Your task to perform on an android device: Play the last video I watched on Youtube Image 0: 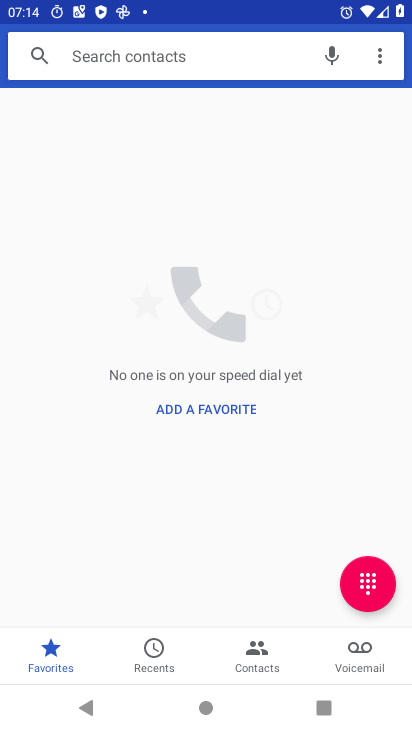
Step 0: press home button
Your task to perform on an android device: Play the last video I watched on Youtube Image 1: 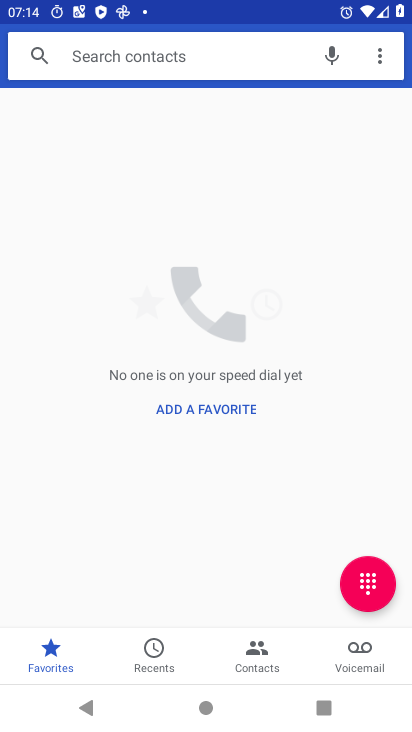
Step 1: press home button
Your task to perform on an android device: Play the last video I watched on Youtube Image 2: 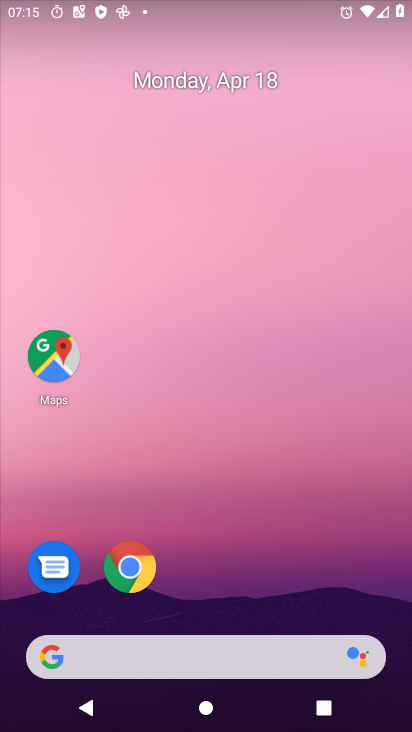
Step 2: drag from (255, 549) to (277, 26)
Your task to perform on an android device: Play the last video I watched on Youtube Image 3: 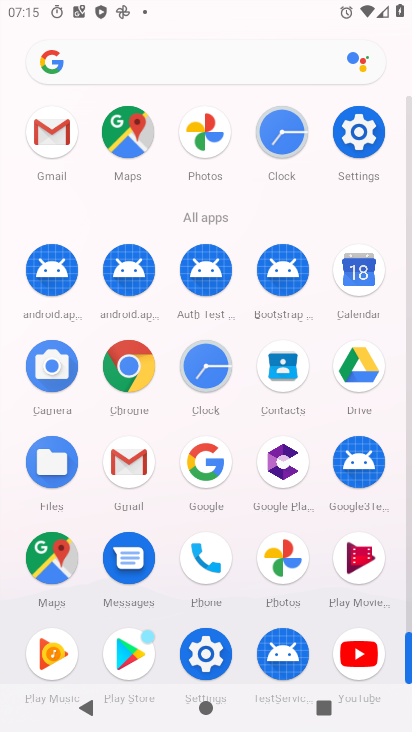
Step 3: click (359, 644)
Your task to perform on an android device: Play the last video I watched on Youtube Image 4: 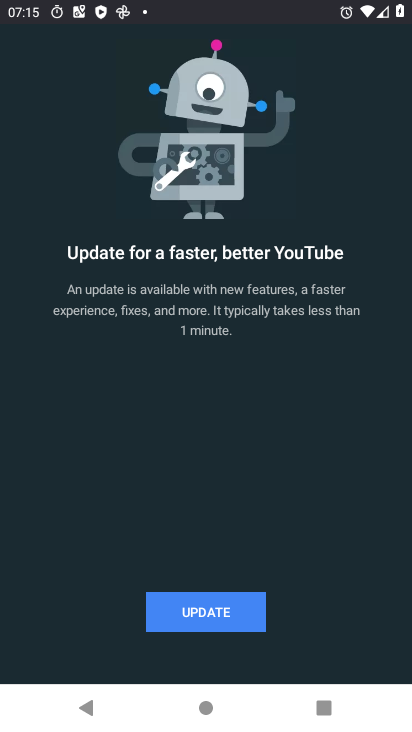
Step 4: click (211, 607)
Your task to perform on an android device: Play the last video I watched on Youtube Image 5: 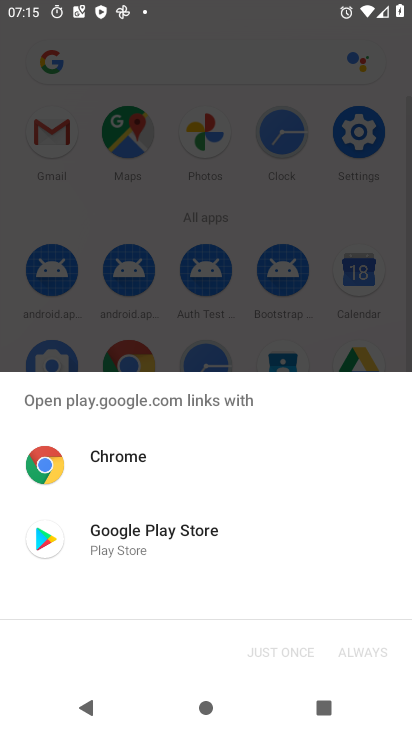
Step 5: click (192, 550)
Your task to perform on an android device: Play the last video I watched on Youtube Image 6: 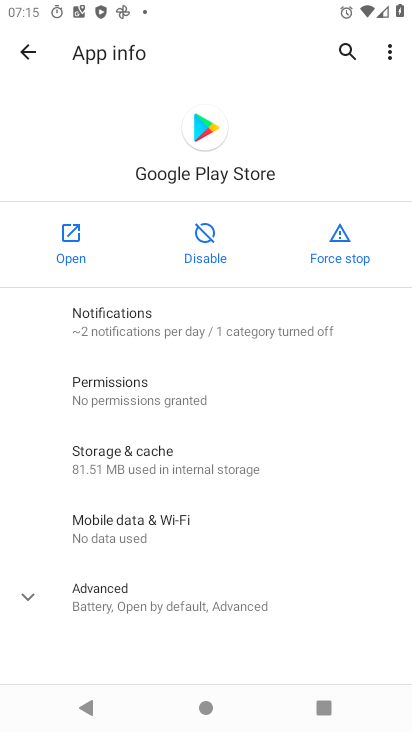
Step 6: press back button
Your task to perform on an android device: Play the last video I watched on Youtube Image 7: 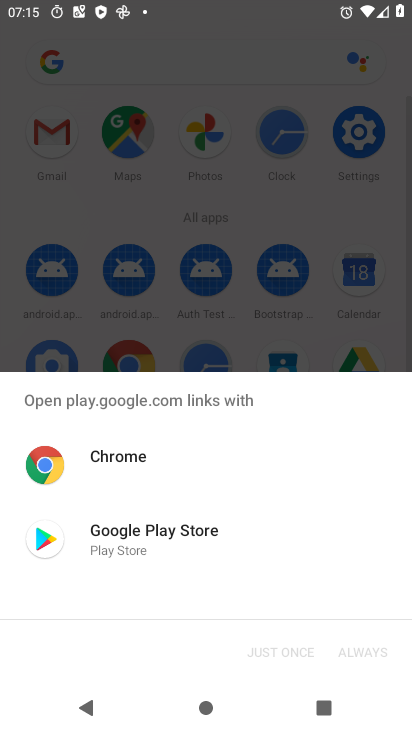
Step 7: click (64, 456)
Your task to perform on an android device: Play the last video I watched on Youtube Image 8: 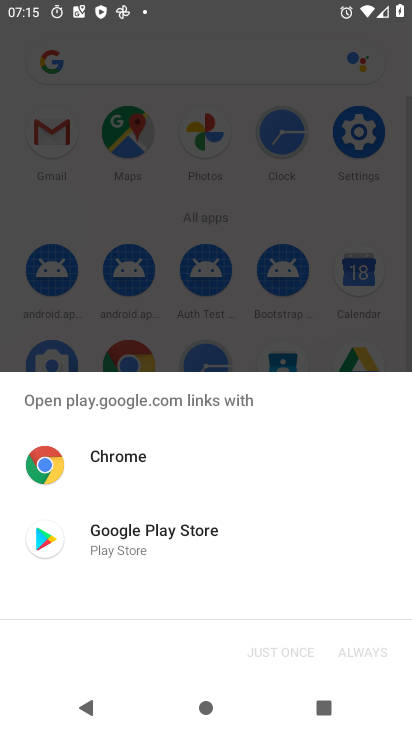
Step 8: click (69, 467)
Your task to perform on an android device: Play the last video I watched on Youtube Image 9: 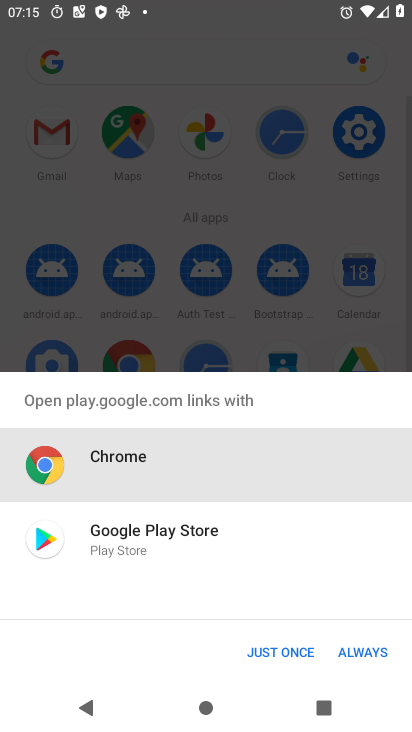
Step 9: click (311, 653)
Your task to perform on an android device: Play the last video I watched on Youtube Image 10: 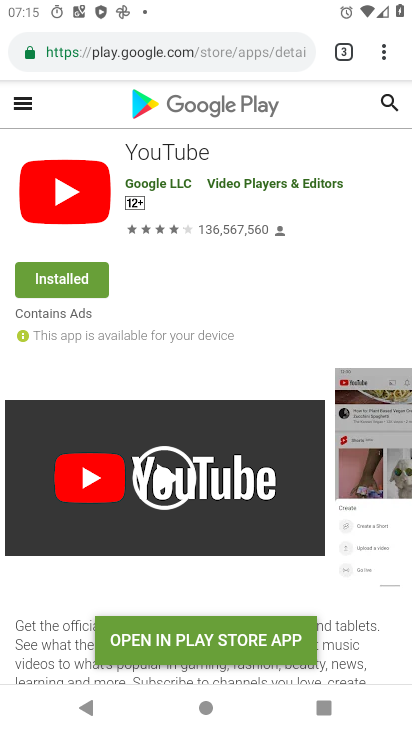
Step 10: click (228, 642)
Your task to perform on an android device: Play the last video I watched on Youtube Image 11: 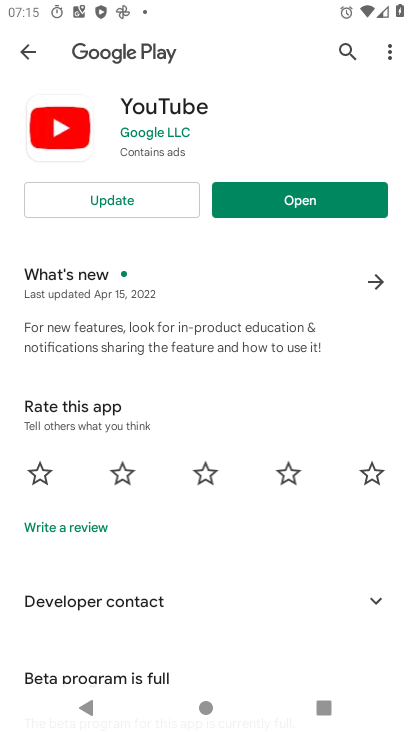
Step 11: click (44, 201)
Your task to perform on an android device: Play the last video I watched on Youtube Image 12: 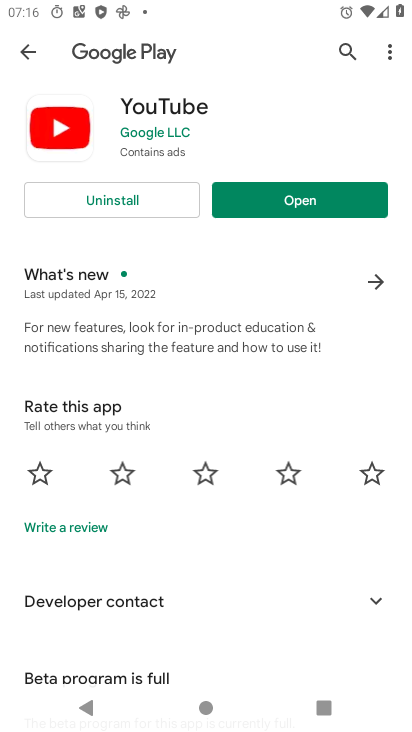
Step 12: click (342, 197)
Your task to perform on an android device: Play the last video I watched on Youtube Image 13: 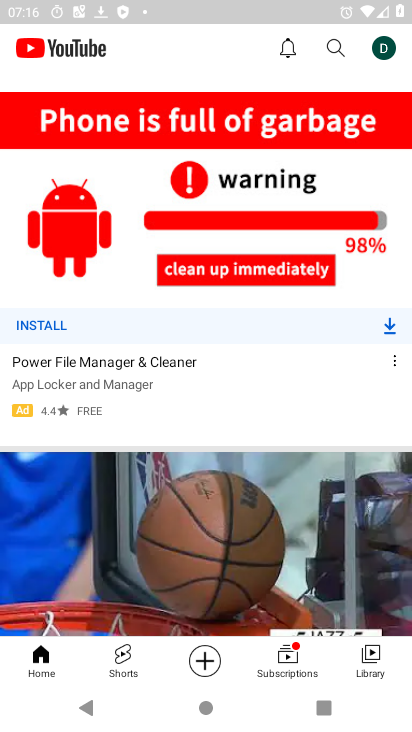
Step 13: click (376, 667)
Your task to perform on an android device: Play the last video I watched on Youtube Image 14: 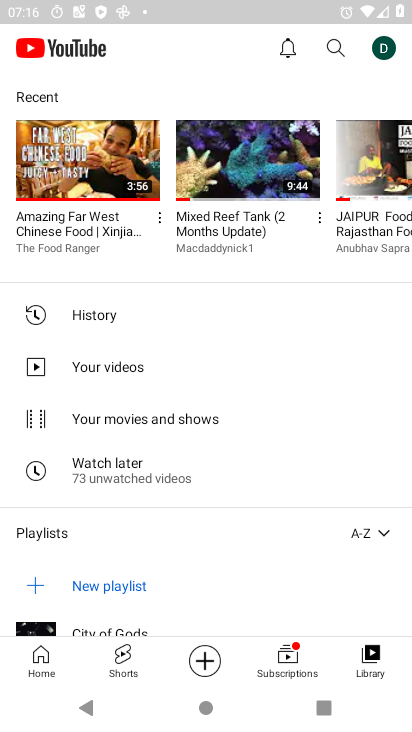
Step 14: click (147, 295)
Your task to perform on an android device: Play the last video I watched on Youtube Image 15: 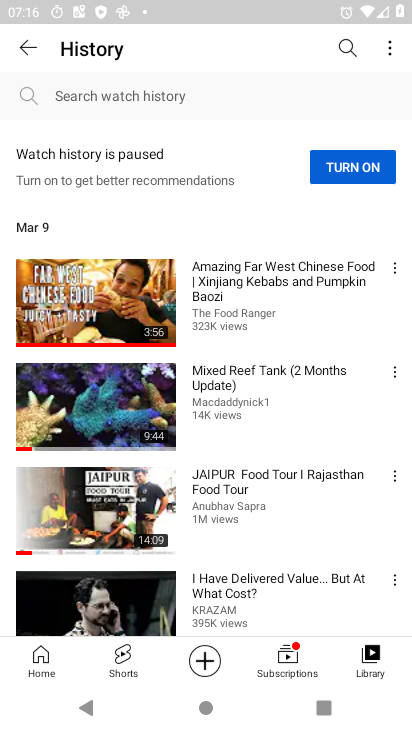
Step 15: drag from (298, 593) to (324, 159)
Your task to perform on an android device: Play the last video I watched on Youtube Image 16: 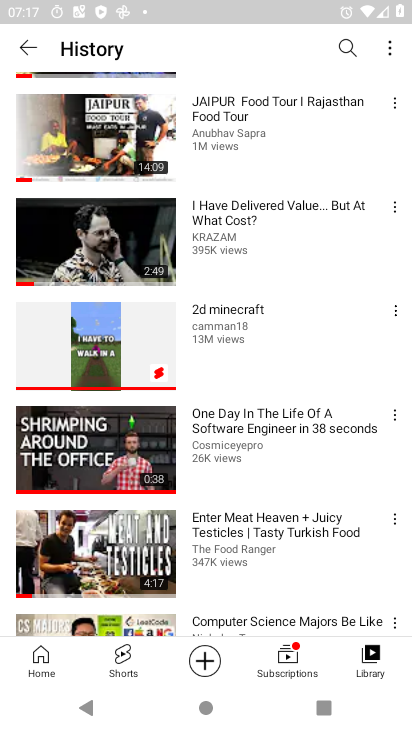
Step 16: drag from (321, 644) to (314, 302)
Your task to perform on an android device: Play the last video I watched on Youtube Image 17: 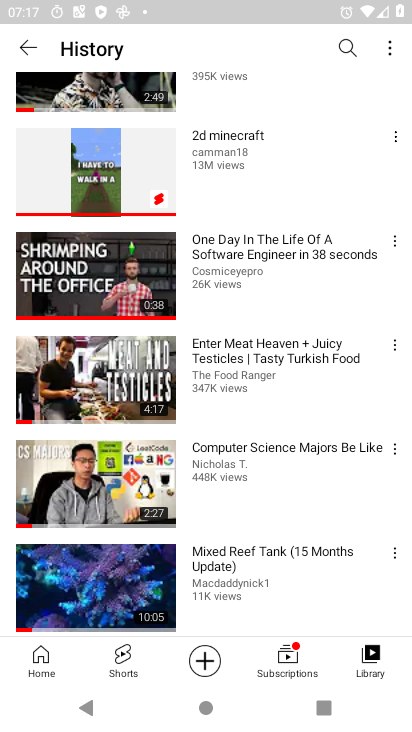
Step 17: drag from (253, 462) to (302, 224)
Your task to perform on an android device: Play the last video I watched on Youtube Image 18: 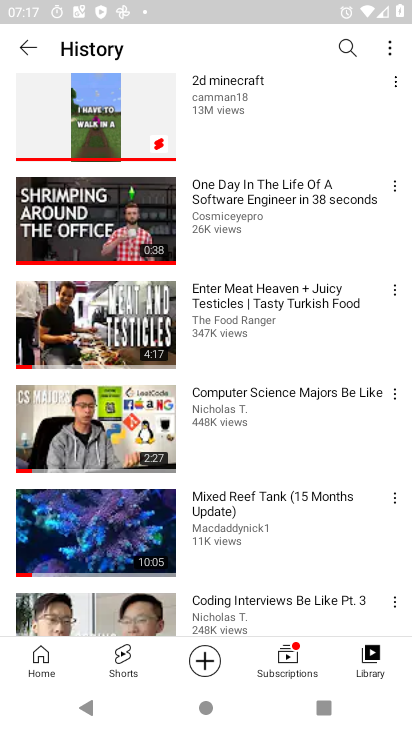
Step 18: drag from (244, 553) to (278, 4)
Your task to perform on an android device: Play the last video I watched on Youtube Image 19: 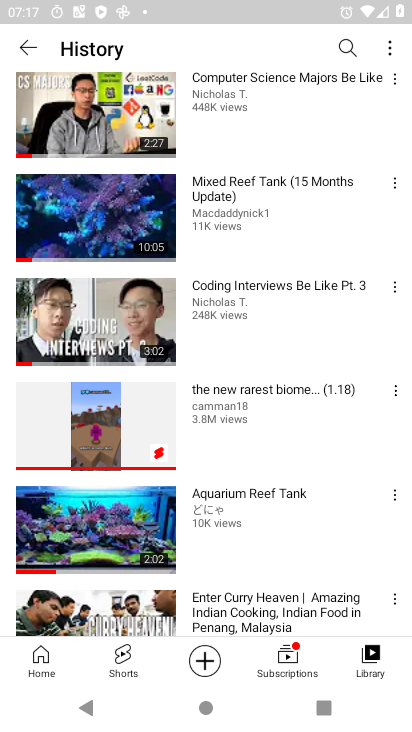
Step 19: drag from (291, 576) to (240, 180)
Your task to perform on an android device: Play the last video I watched on Youtube Image 20: 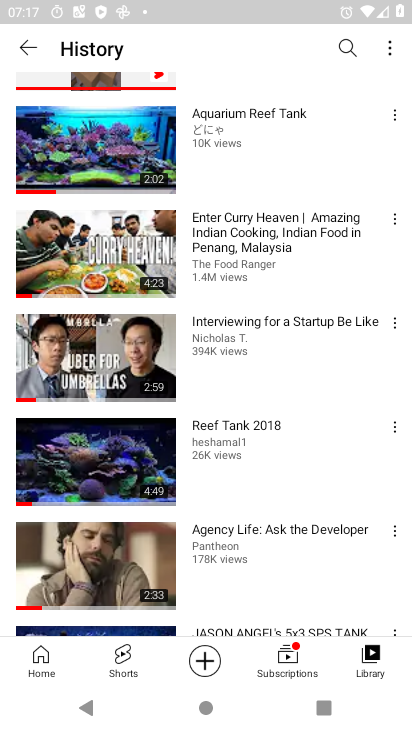
Step 20: drag from (229, 538) to (227, 213)
Your task to perform on an android device: Play the last video I watched on Youtube Image 21: 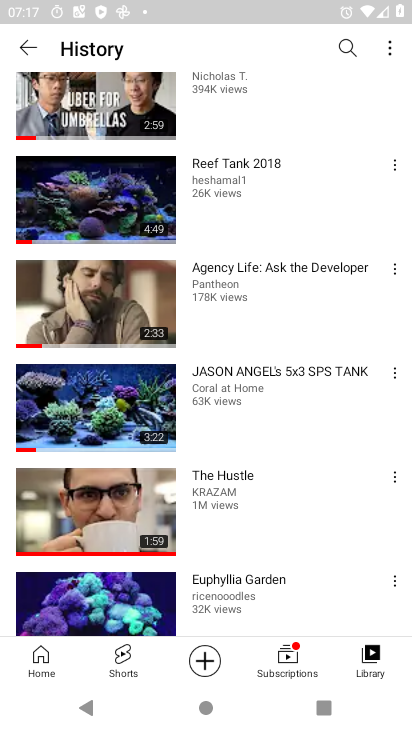
Step 21: drag from (211, 581) to (260, 80)
Your task to perform on an android device: Play the last video I watched on Youtube Image 22: 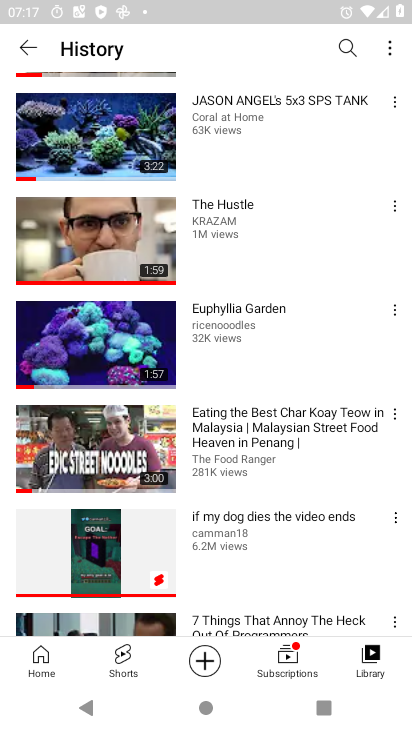
Step 22: drag from (308, 582) to (350, 102)
Your task to perform on an android device: Play the last video I watched on Youtube Image 23: 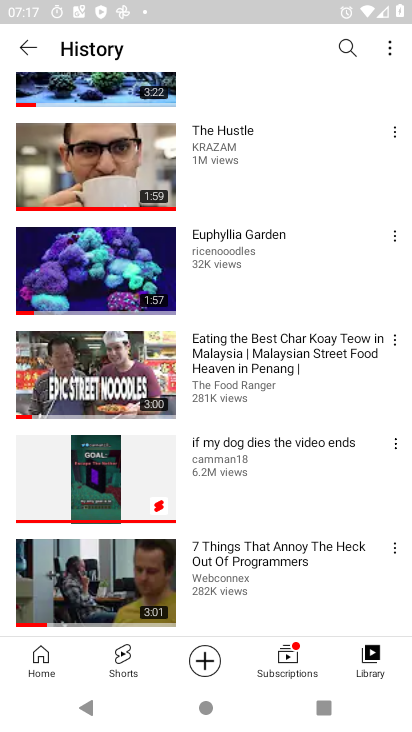
Step 23: drag from (277, 589) to (305, 275)
Your task to perform on an android device: Play the last video I watched on Youtube Image 24: 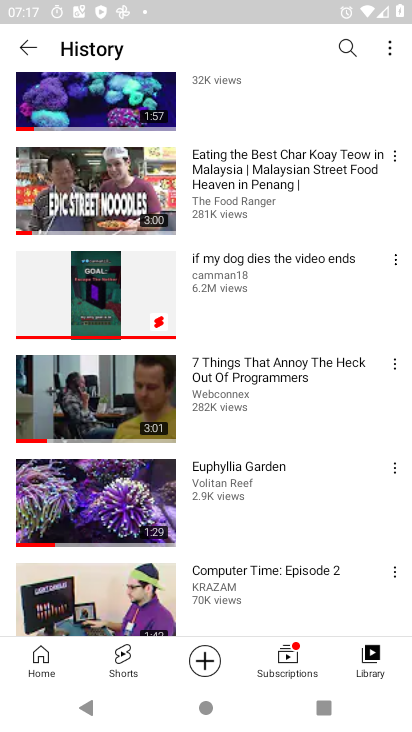
Step 24: drag from (224, 573) to (265, 213)
Your task to perform on an android device: Play the last video I watched on Youtube Image 25: 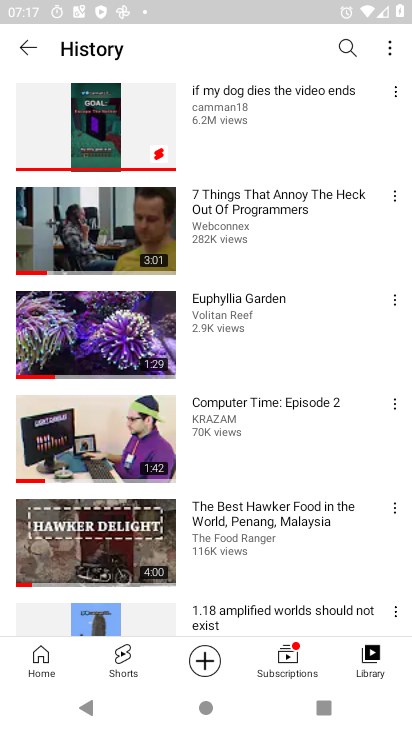
Step 25: drag from (240, 531) to (250, 270)
Your task to perform on an android device: Play the last video I watched on Youtube Image 26: 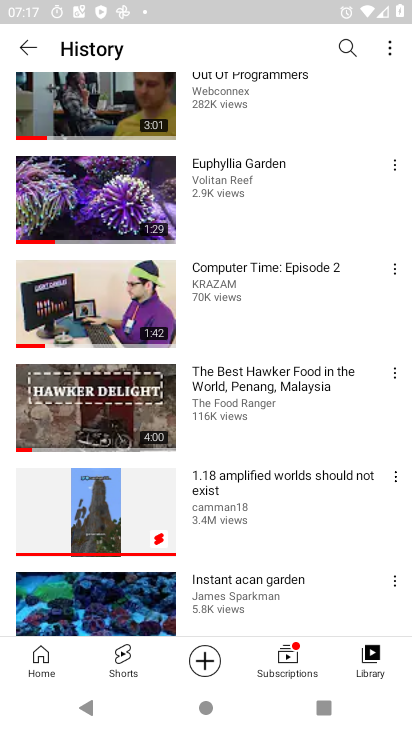
Step 26: drag from (223, 530) to (287, 258)
Your task to perform on an android device: Play the last video I watched on Youtube Image 27: 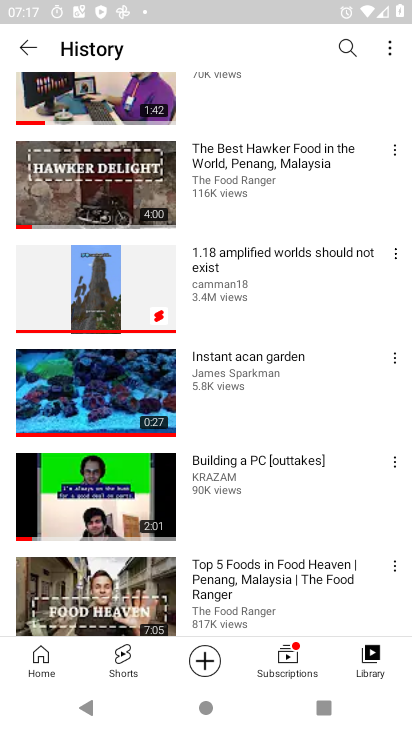
Step 27: drag from (220, 611) to (253, 469)
Your task to perform on an android device: Play the last video I watched on Youtube Image 28: 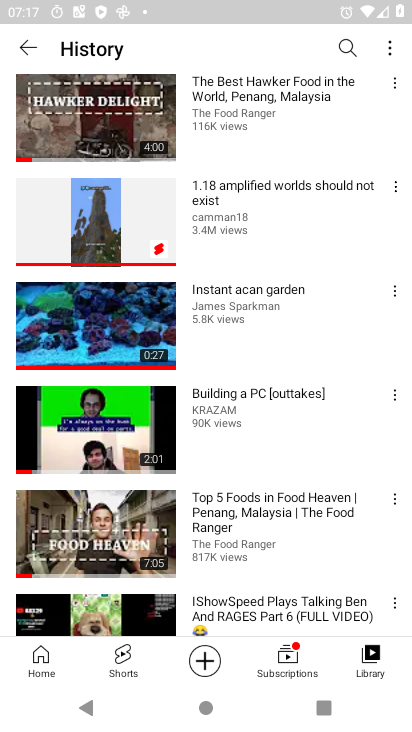
Step 28: drag from (291, 163) to (330, 568)
Your task to perform on an android device: Play the last video I watched on Youtube Image 29: 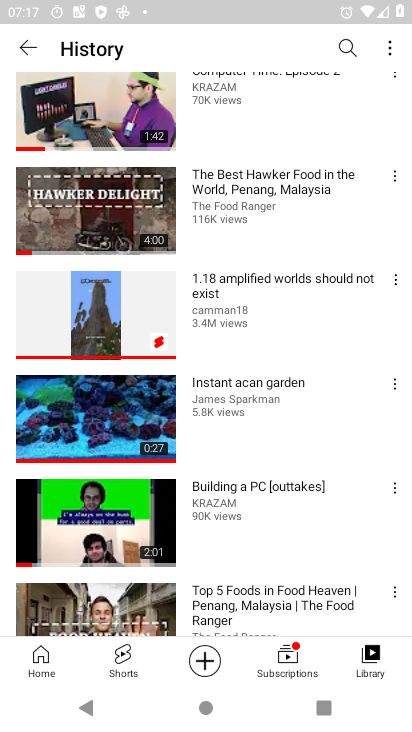
Step 29: drag from (315, 142) to (336, 710)
Your task to perform on an android device: Play the last video I watched on Youtube Image 30: 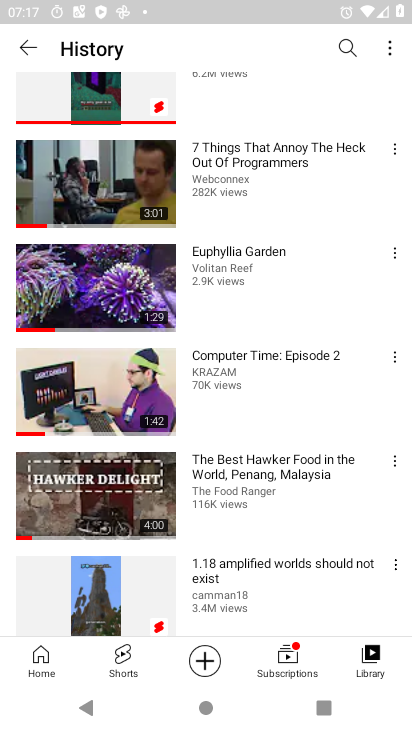
Step 30: drag from (280, 177) to (292, 718)
Your task to perform on an android device: Play the last video I watched on Youtube Image 31: 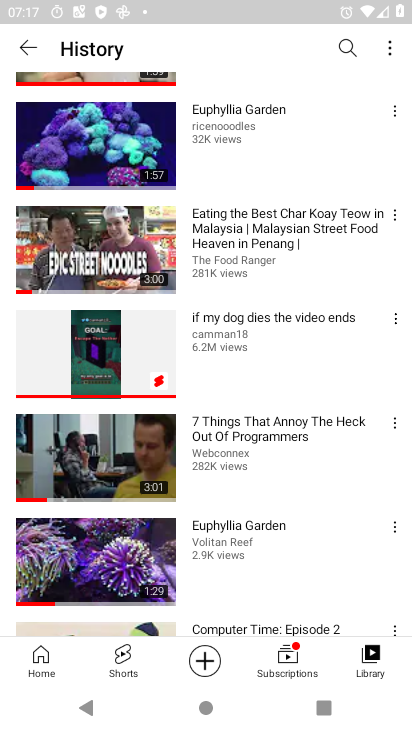
Step 31: drag from (306, 169) to (288, 495)
Your task to perform on an android device: Play the last video I watched on Youtube Image 32: 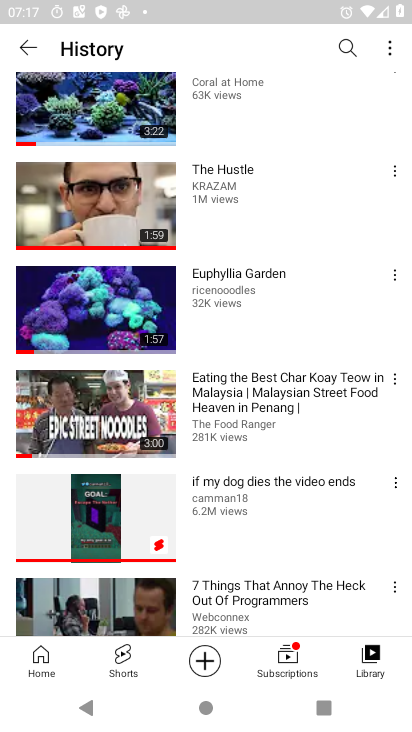
Step 32: drag from (272, 160) to (322, 699)
Your task to perform on an android device: Play the last video I watched on Youtube Image 33: 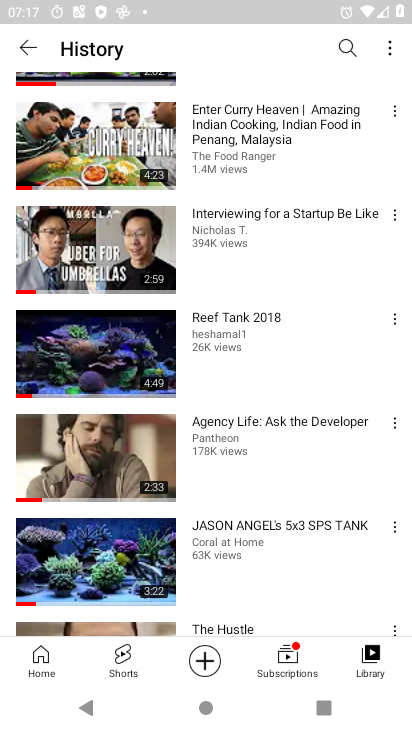
Step 33: drag from (258, 125) to (170, 644)
Your task to perform on an android device: Play the last video I watched on Youtube Image 34: 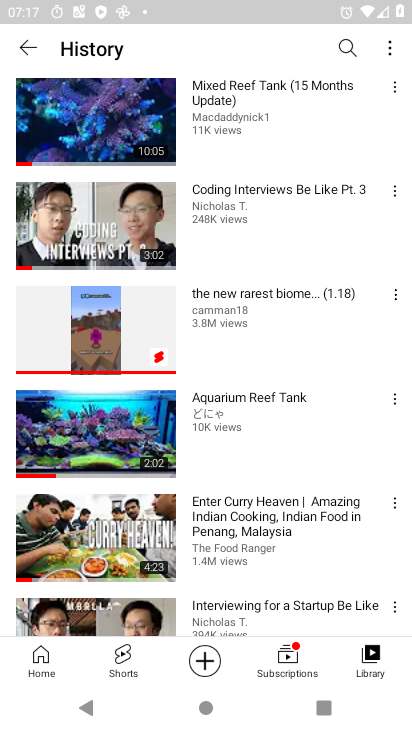
Step 34: drag from (278, 124) to (215, 693)
Your task to perform on an android device: Play the last video I watched on Youtube Image 35: 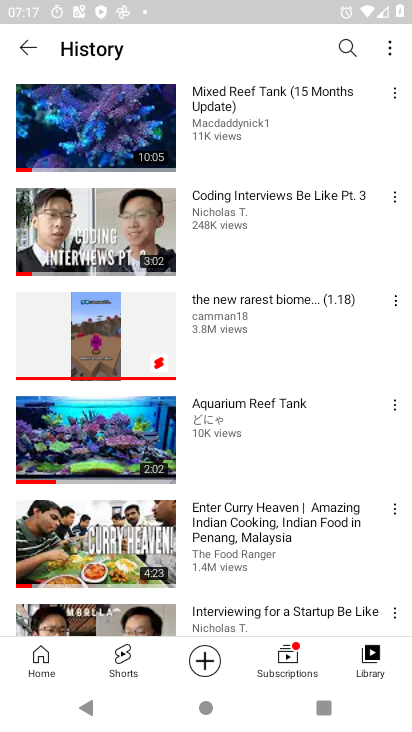
Step 35: drag from (292, 143) to (228, 706)
Your task to perform on an android device: Play the last video I watched on Youtube Image 36: 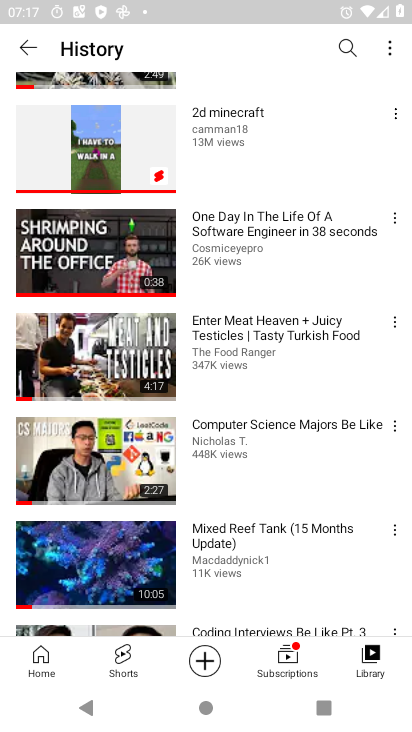
Step 36: drag from (310, 153) to (247, 730)
Your task to perform on an android device: Play the last video I watched on Youtube Image 37: 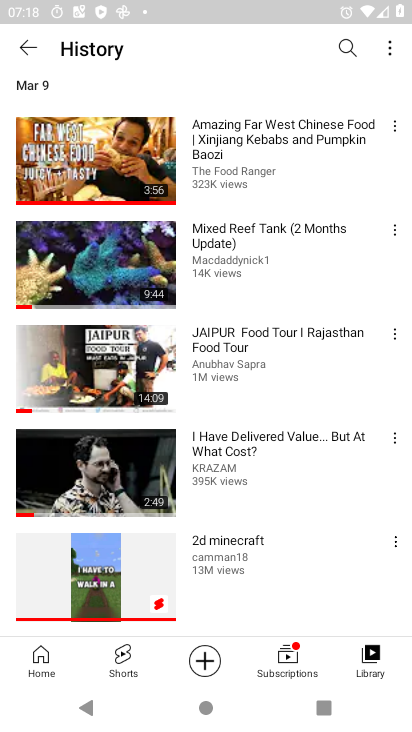
Step 37: drag from (272, 166) to (284, 417)
Your task to perform on an android device: Play the last video I watched on Youtube Image 38: 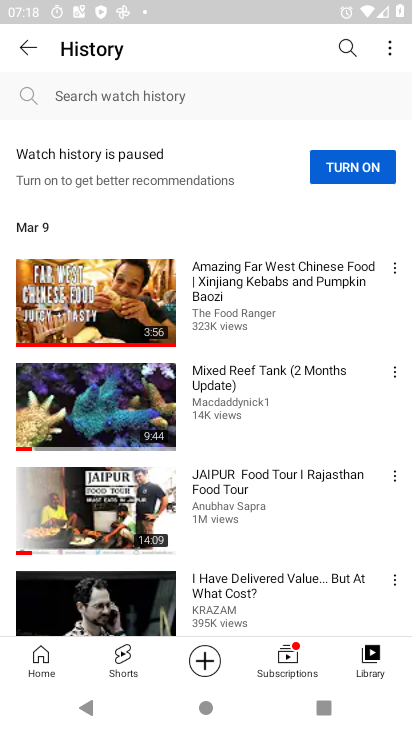
Step 38: click (171, 307)
Your task to perform on an android device: Play the last video I watched on Youtube Image 39: 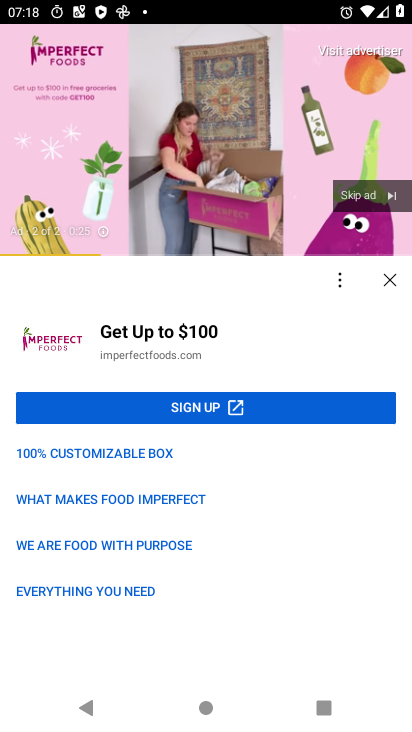
Step 39: click (366, 204)
Your task to perform on an android device: Play the last video I watched on Youtube Image 40: 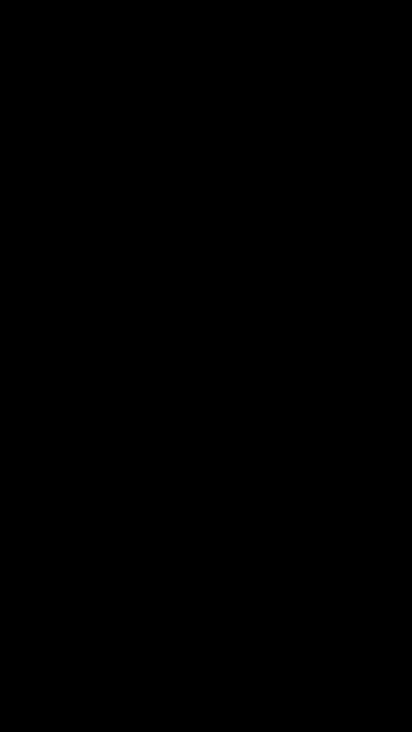
Step 40: task complete